Your task to perform on an android device: What's the weather going to be tomorrow? Image 0: 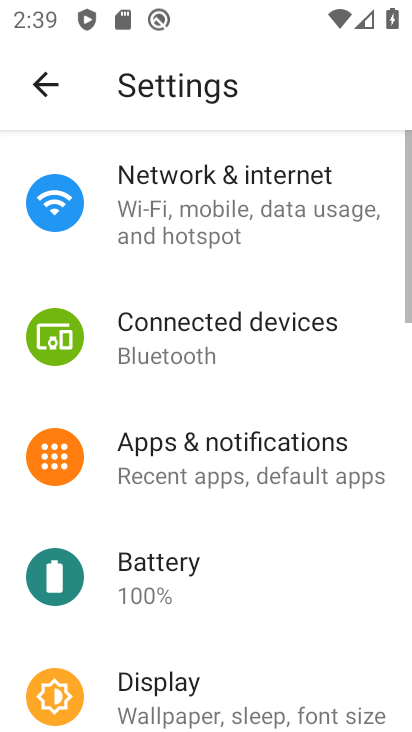
Step 0: press home button
Your task to perform on an android device: What's the weather going to be tomorrow? Image 1: 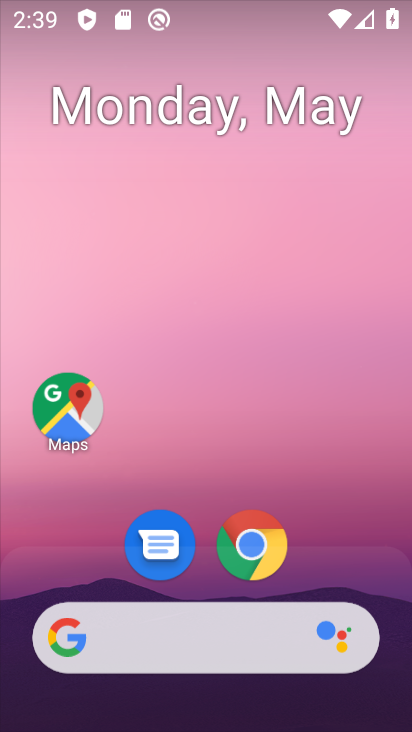
Step 1: drag from (193, 610) to (366, 9)
Your task to perform on an android device: What's the weather going to be tomorrow? Image 2: 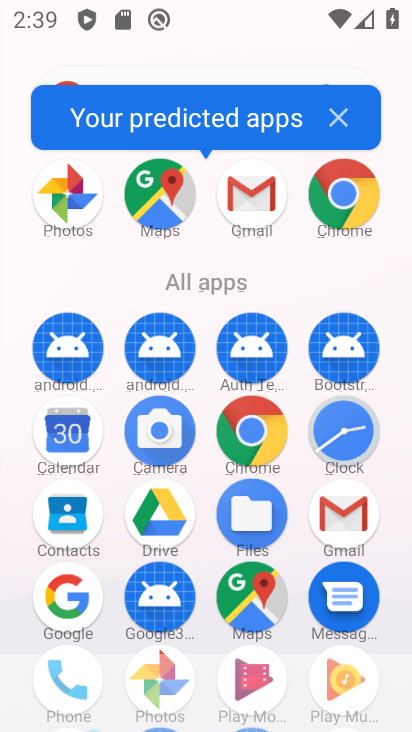
Step 2: click (49, 569)
Your task to perform on an android device: What's the weather going to be tomorrow? Image 3: 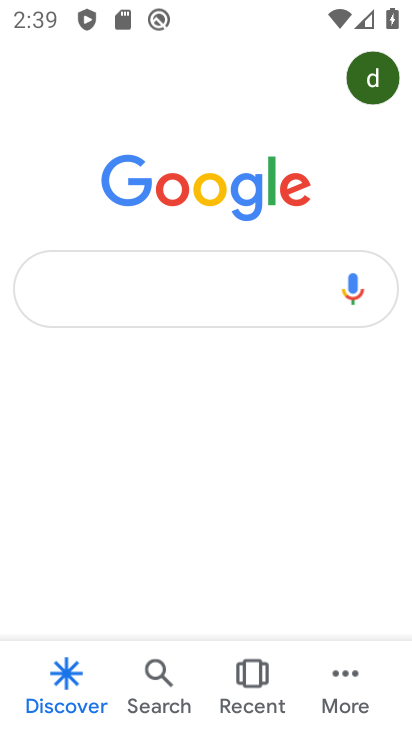
Step 3: click (203, 314)
Your task to perform on an android device: What's the weather going to be tomorrow? Image 4: 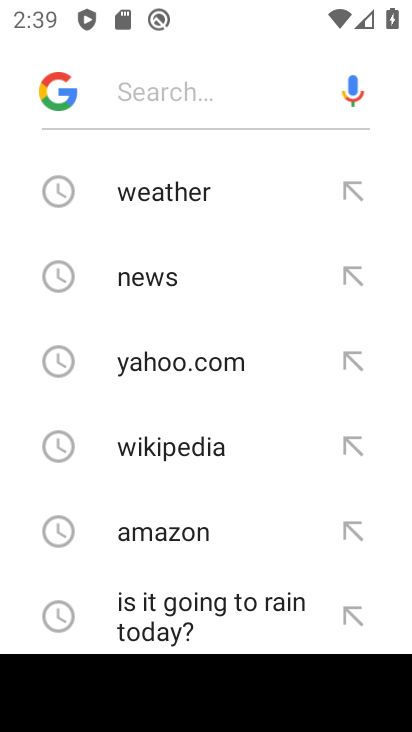
Step 4: click (147, 193)
Your task to perform on an android device: What's the weather going to be tomorrow? Image 5: 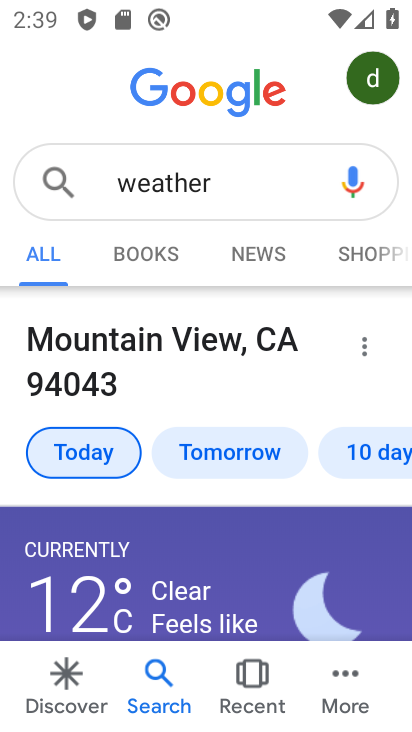
Step 5: task complete